Your task to perform on an android device: open sync settings in chrome Image 0: 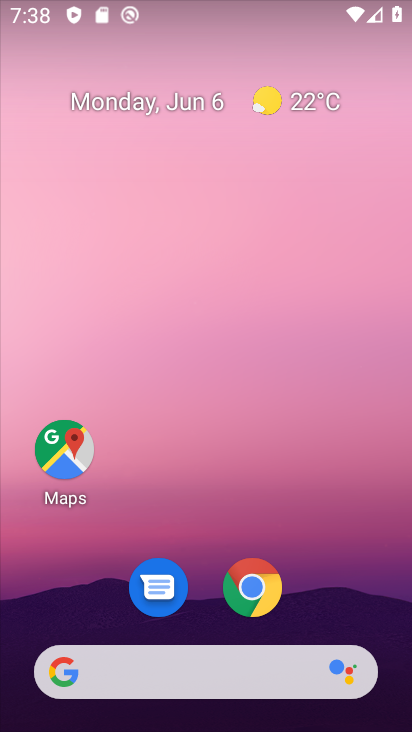
Step 0: click (262, 589)
Your task to perform on an android device: open sync settings in chrome Image 1: 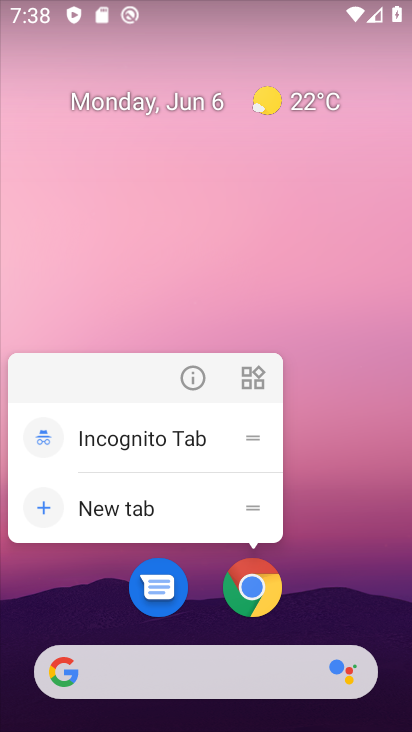
Step 1: click (262, 588)
Your task to perform on an android device: open sync settings in chrome Image 2: 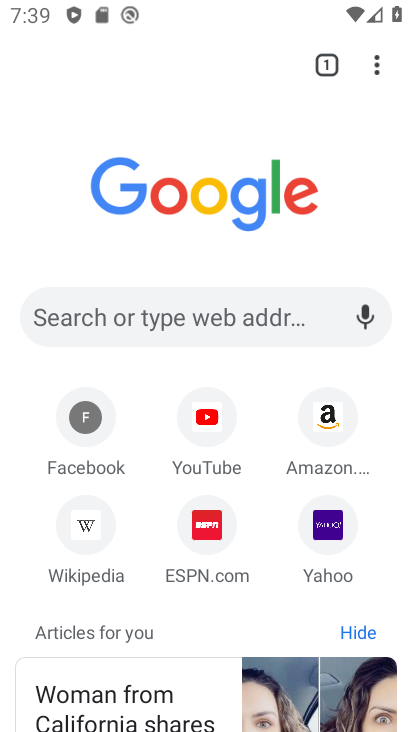
Step 2: click (373, 66)
Your task to perform on an android device: open sync settings in chrome Image 3: 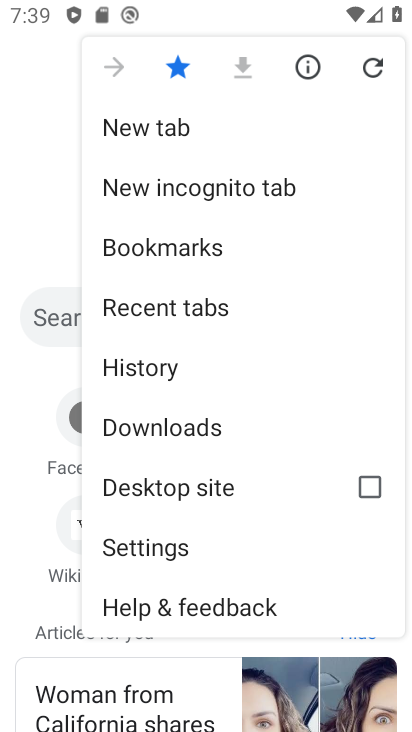
Step 3: click (126, 555)
Your task to perform on an android device: open sync settings in chrome Image 4: 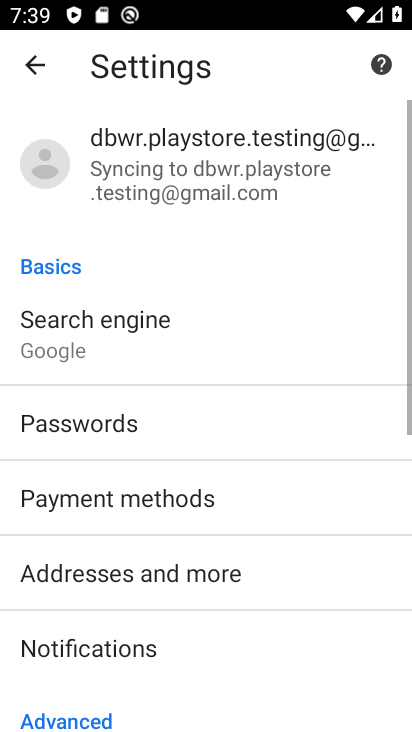
Step 4: drag from (245, 623) to (259, 113)
Your task to perform on an android device: open sync settings in chrome Image 5: 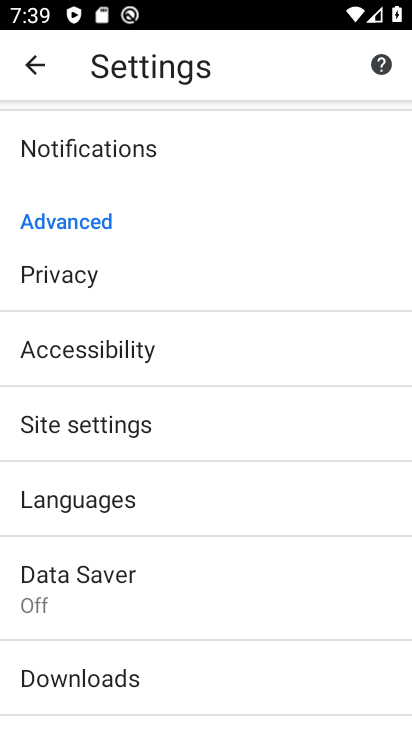
Step 5: click (108, 417)
Your task to perform on an android device: open sync settings in chrome Image 6: 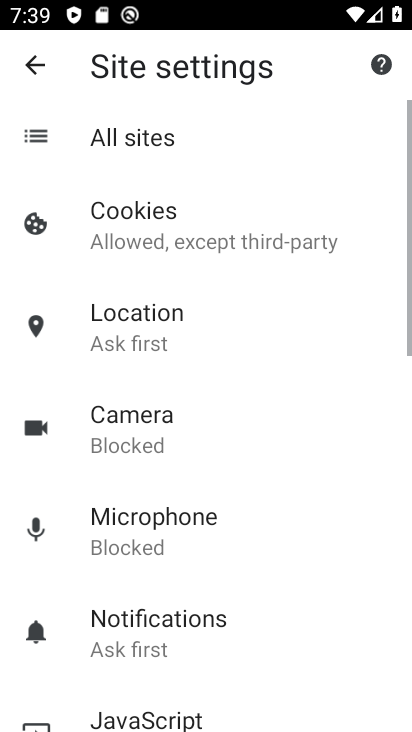
Step 6: drag from (292, 602) to (332, 168)
Your task to perform on an android device: open sync settings in chrome Image 7: 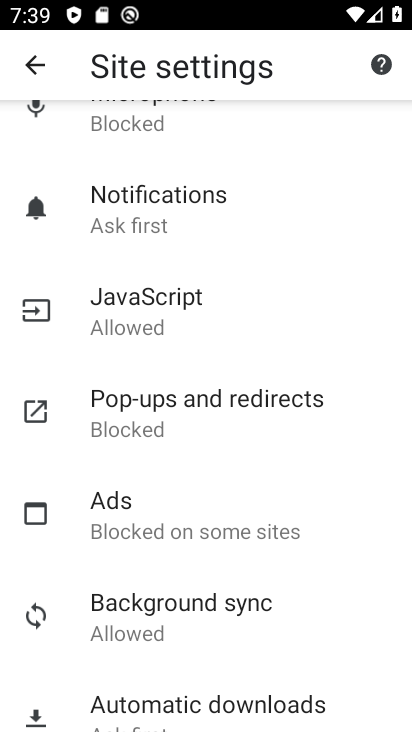
Step 7: click (178, 612)
Your task to perform on an android device: open sync settings in chrome Image 8: 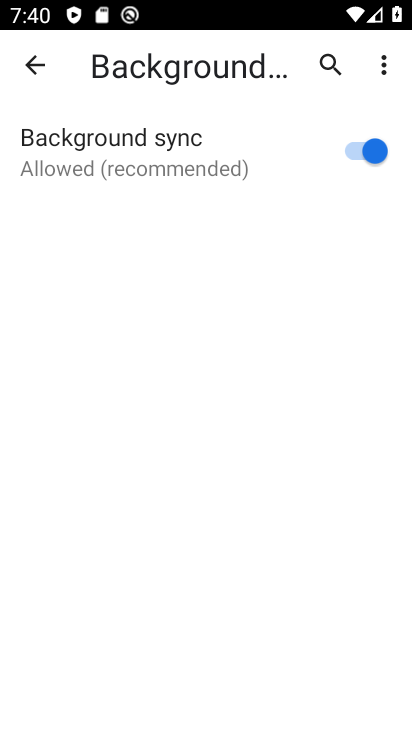
Step 8: task complete